Your task to perform on an android device: see creations saved in the google photos Image 0: 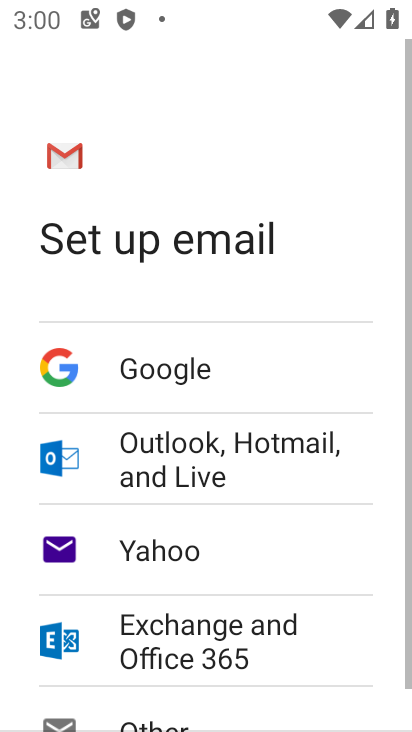
Step 0: press home button
Your task to perform on an android device: see creations saved in the google photos Image 1: 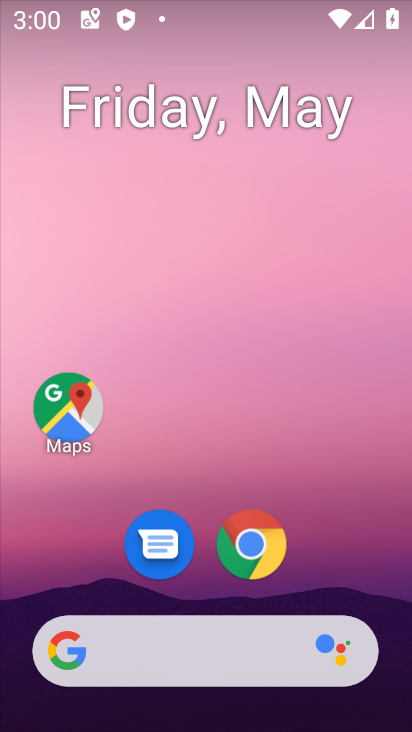
Step 1: drag from (198, 577) to (198, 274)
Your task to perform on an android device: see creations saved in the google photos Image 2: 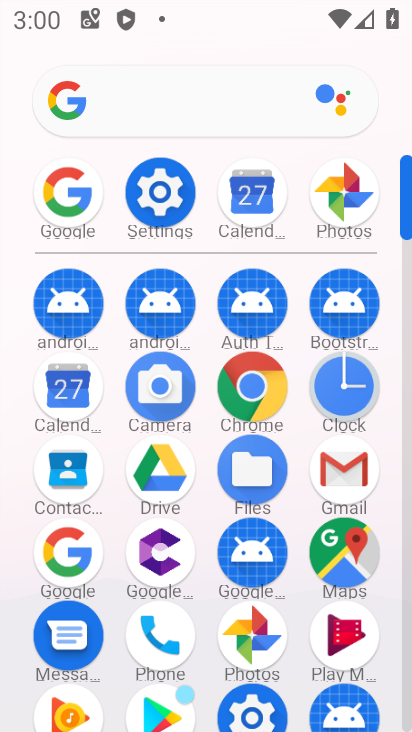
Step 2: click (356, 204)
Your task to perform on an android device: see creations saved in the google photos Image 3: 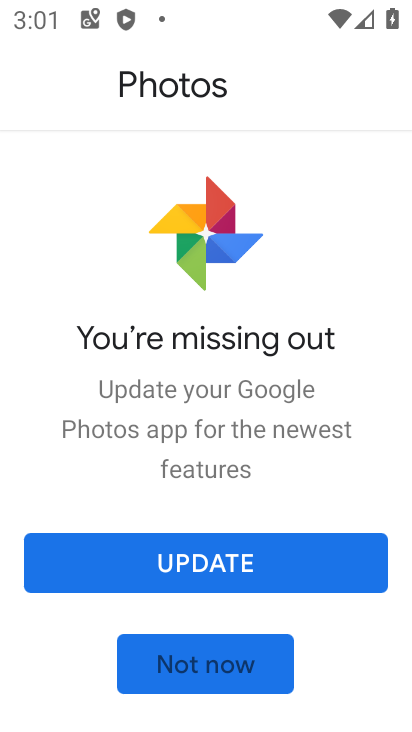
Step 3: click (188, 657)
Your task to perform on an android device: see creations saved in the google photos Image 4: 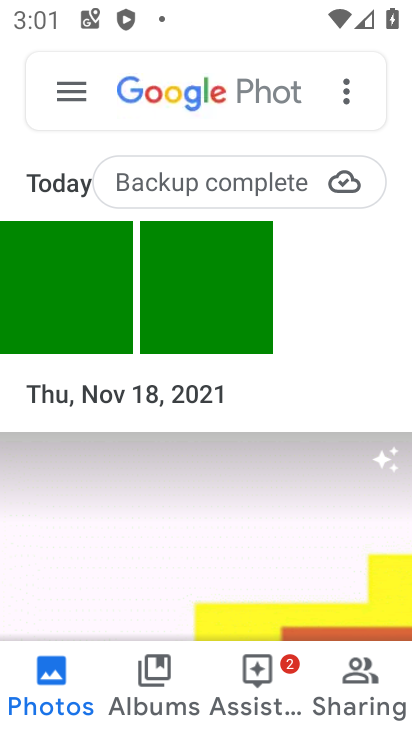
Step 4: click (204, 119)
Your task to perform on an android device: see creations saved in the google photos Image 5: 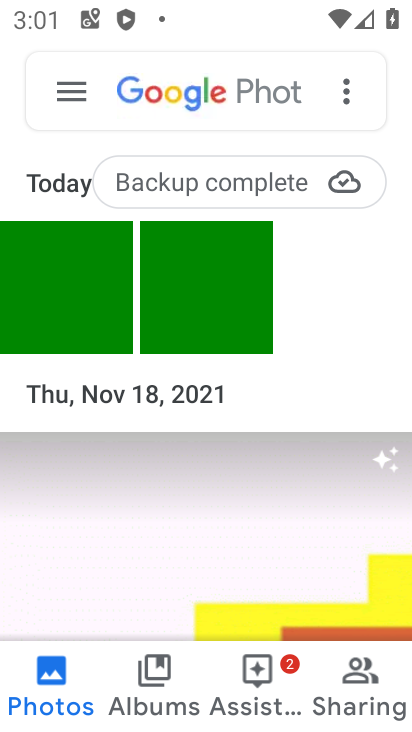
Step 5: click (204, 87)
Your task to perform on an android device: see creations saved in the google photos Image 6: 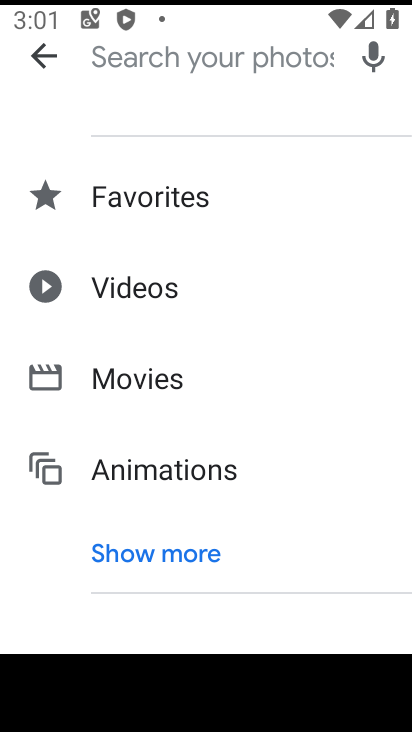
Step 6: click (136, 562)
Your task to perform on an android device: see creations saved in the google photos Image 7: 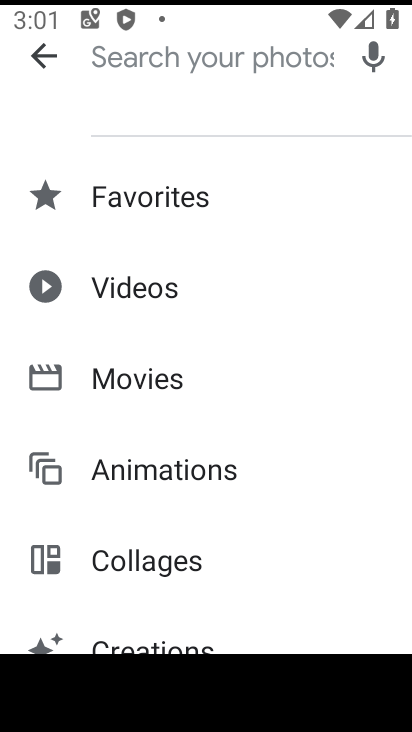
Step 7: drag from (161, 594) to (161, 346)
Your task to perform on an android device: see creations saved in the google photos Image 8: 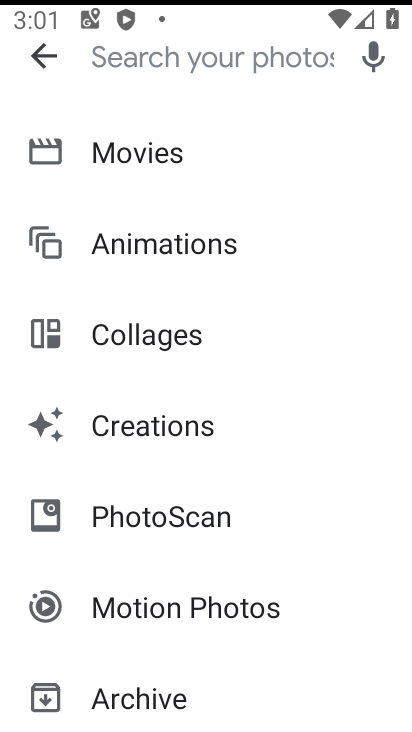
Step 8: click (166, 400)
Your task to perform on an android device: see creations saved in the google photos Image 9: 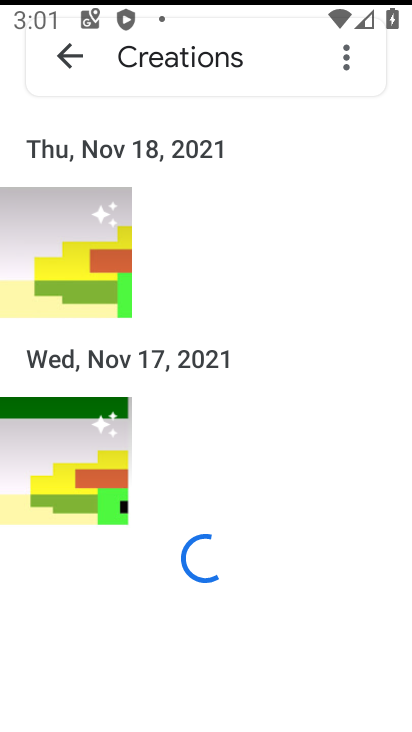
Step 9: task complete